Your task to perform on an android device: uninstall "Venmo" Image 0: 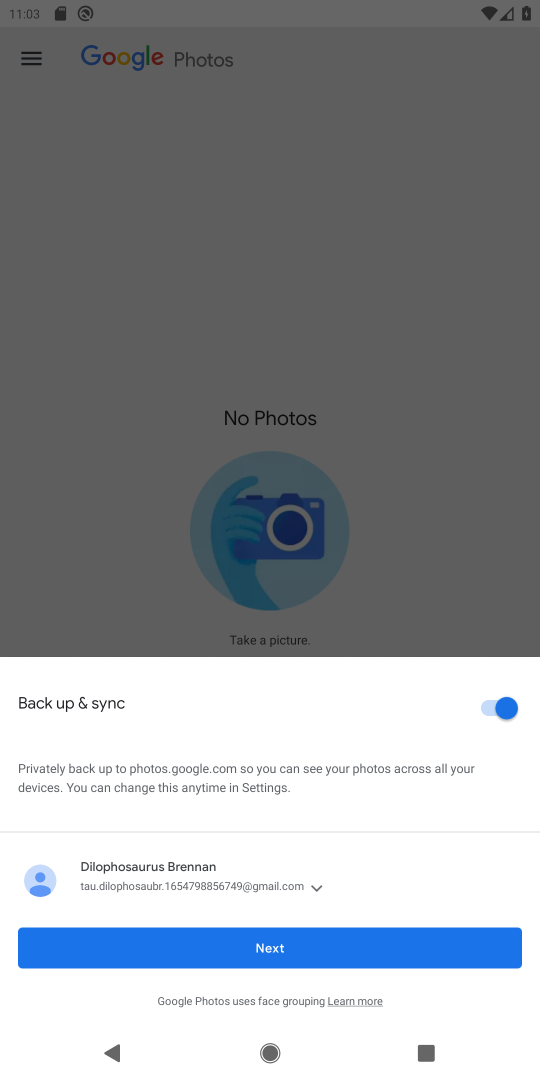
Step 0: press home button
Your task to perform on an android device: uninstall "Venmo" Image 1: 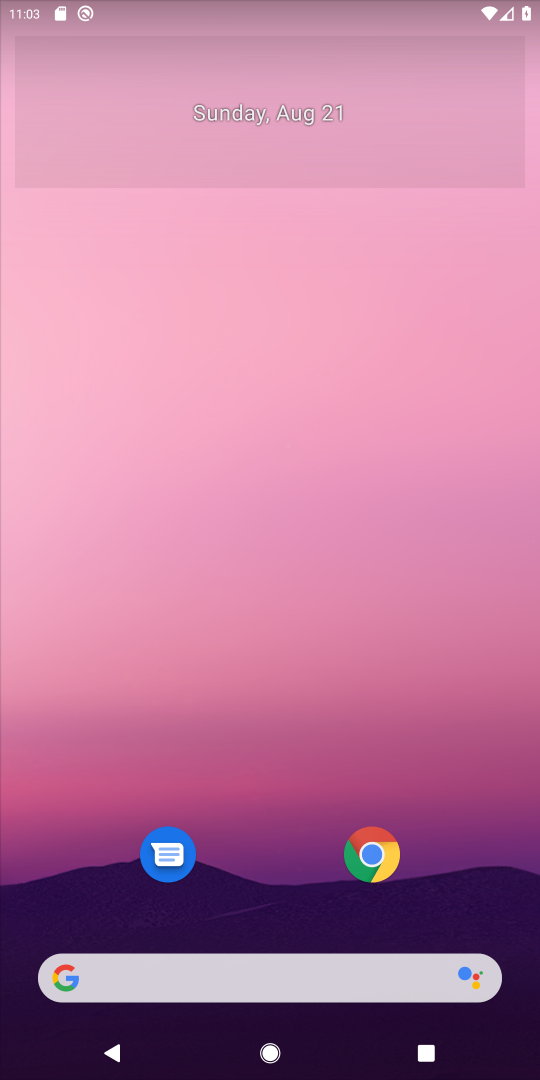
Step 1: task complete